Your task to perform on an android device: see creations saved in the google photos Image 0: 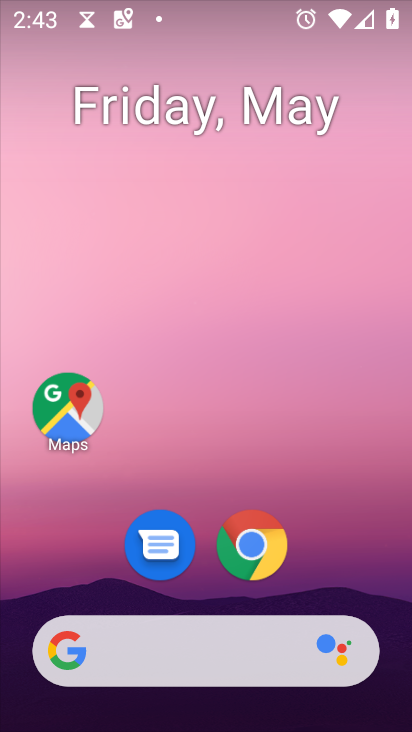
Step 0: drag from (344, 564) to (288, 146)
Your task to perform on an android device: see creations saved in the google photos Image 1: 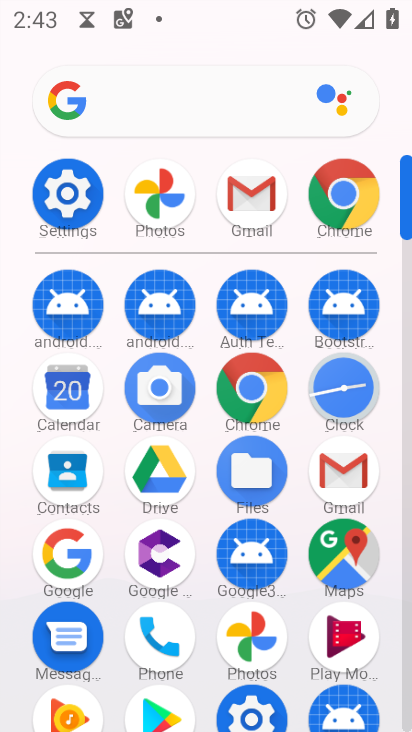
Step 1: click (261, 625)
Your task to perform on an android device: see creations saved in the google photos Image 2: 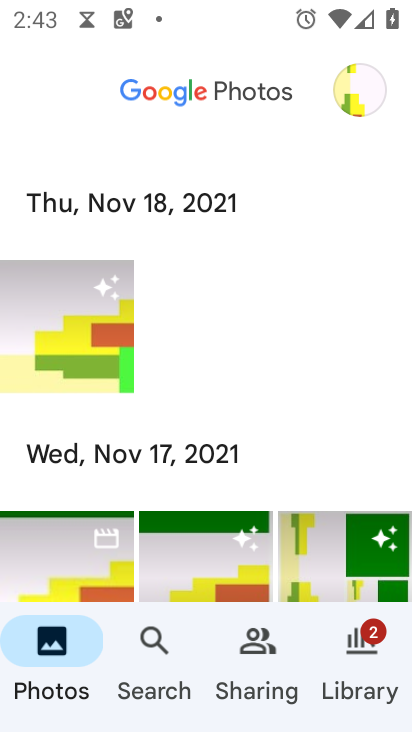
Step 2: click (153, 644)
Your task to perform on an android device: see creations saved in the google photos Image 3: 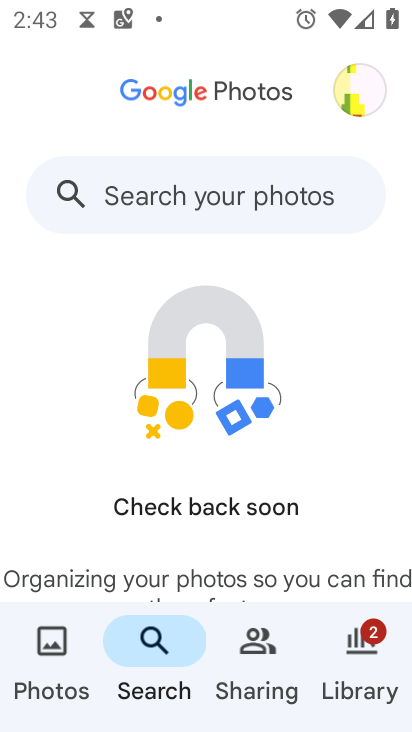
Step 3: drag from (317, 474) to (303, 264)
Your task to perform on an android device: see creations saved in the google photos Image 4: 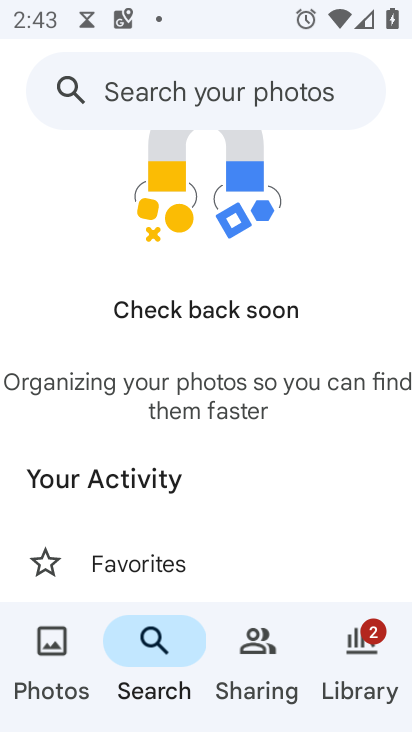
Step 4: drag from (272, 505) to (251, 272)
Your task to perform on an android device: see creations saved in the google photos Image 5: 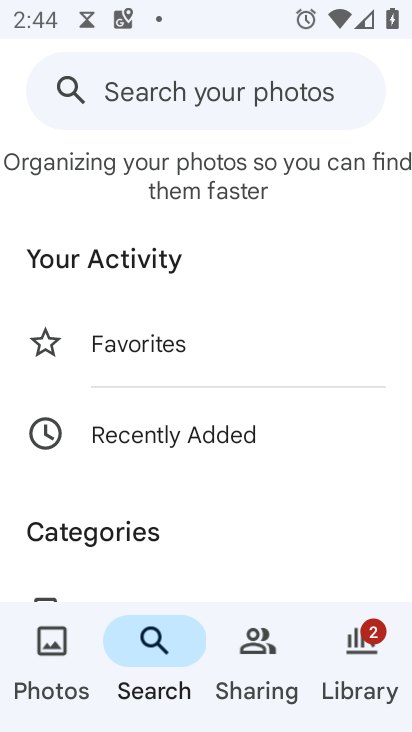
Step 5: drag from (235, 500) to (264, 174)
Your task to perform on an android device: see creations saved in the google photos Image 6: 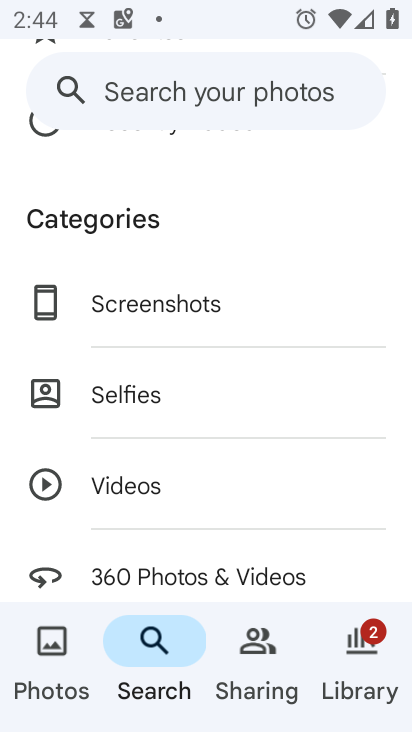
Step 6: drag from (242, 531) to (291, 180)
Your task to perform on an android device: see creations saved in the google photos Image 7: 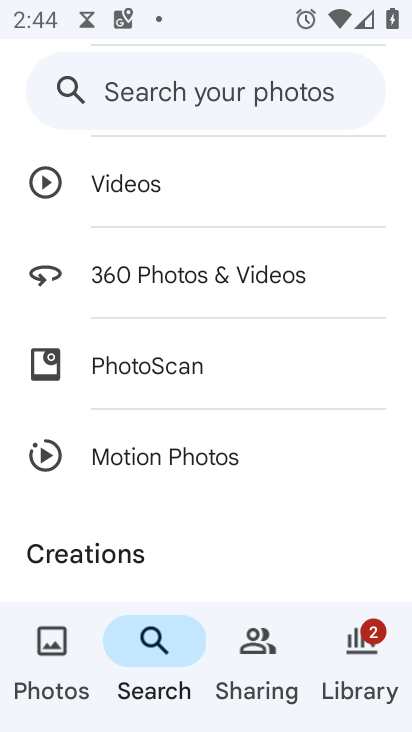
Step 7: drag from (237, 546) to (247, 229)
Your task to perform on an android device: see creations saved in the google photos Image 8: 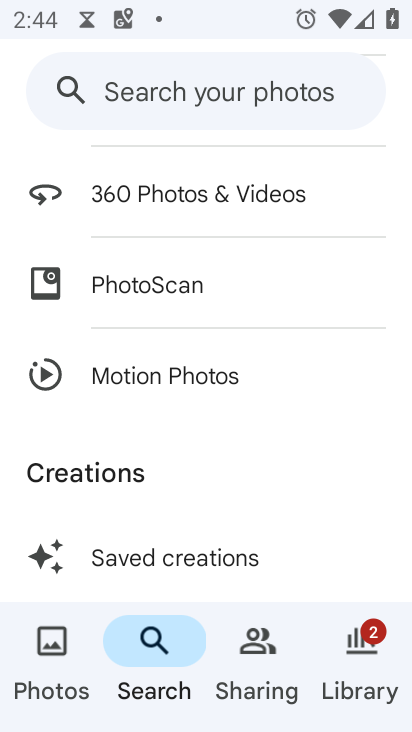
Step 8: click (158, 563)
Your task to perform on an android device: see creations saved in the google photos Image 9: 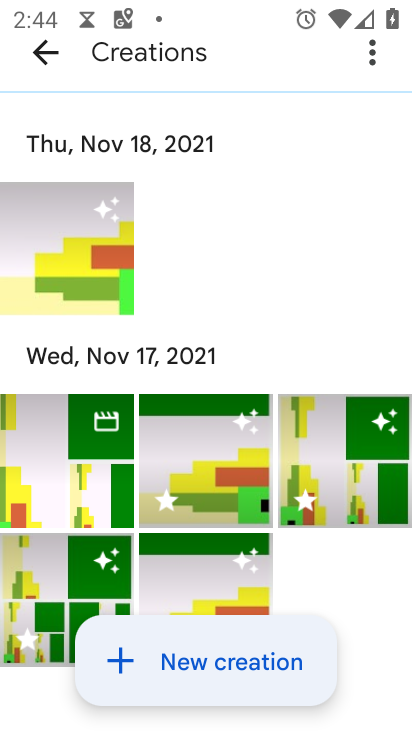
Step 9: task complete